Your task to perform on an android device: toggle pop-ups in chrome Image 0: 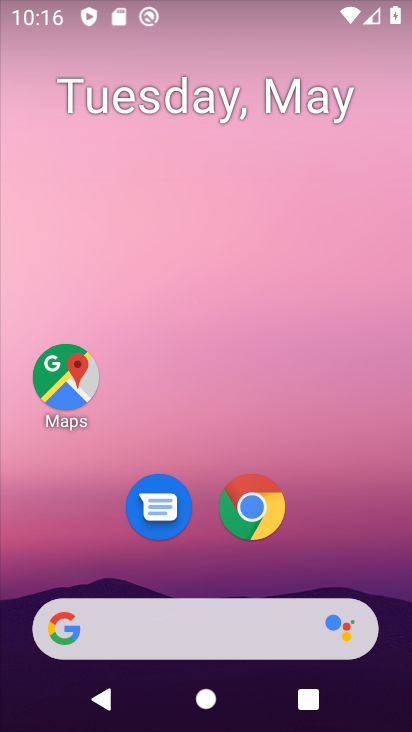
Step 0: drag from (214, 651) to (288, 77)
Your task to perform on an android device: toggle pop-ups in chrome Image 1: 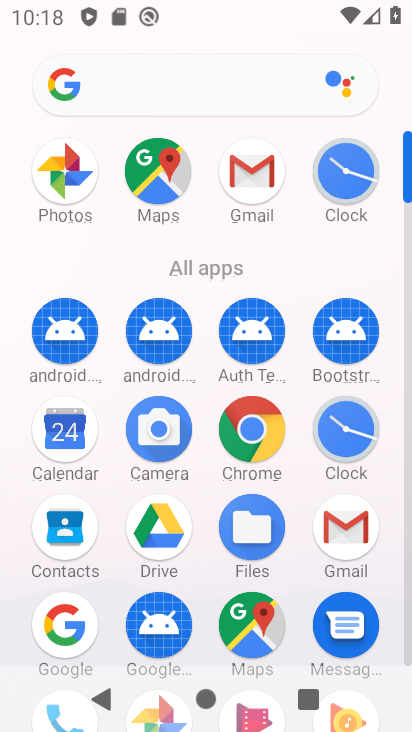
Step 1: click (256, 440)
Your task to perform on an android device: toggle pop-ups in chrome Image 2: 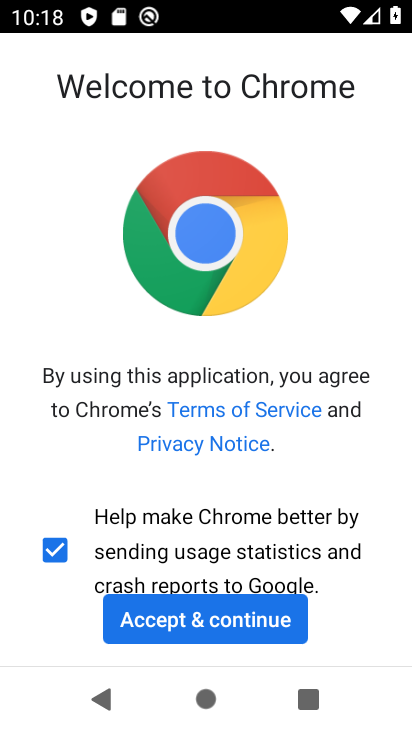
Step 2: click (209, 627)
Your task to perform on an android device: toggle pop-ups in chrome Image 3: 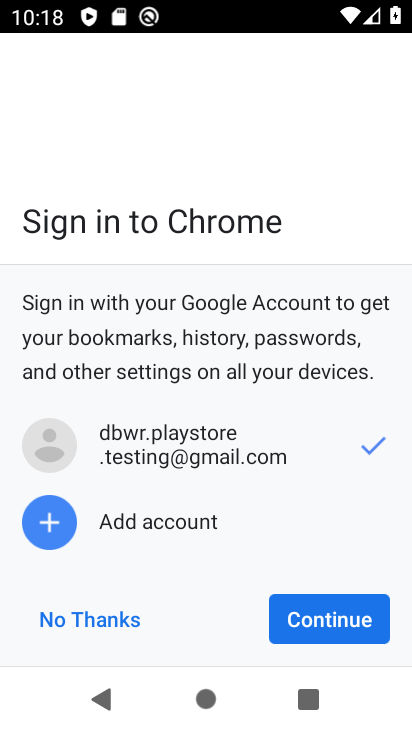
Step 3: click (334, 603)
Your task to perform on an android device: toggle pop-ups in chrome Image 4: 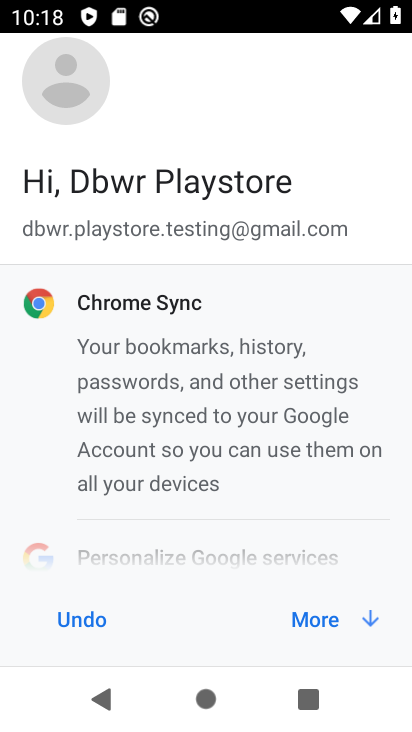
Step 4: click (365, 622)
Your task to perform on an android device: toggle pop-ups in chrome Image 5: 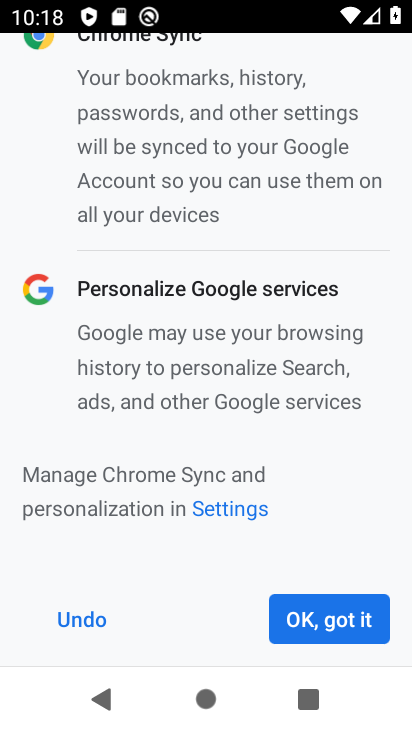
Step 5: click (364, 607)
Your task to perform on an android device: toggle pop-ups in chrome Image 6: 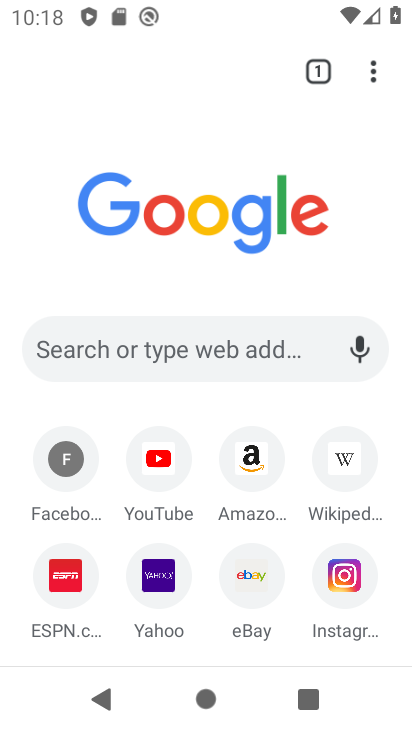
Step 6: click (379, 81)
Your task to perform on an android device: toggle pop-ups in chrome Image 7: 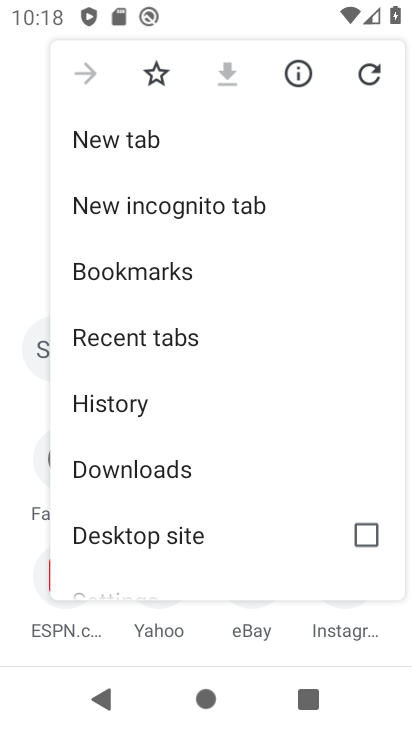
Step 7: drag from (141, 531) to (232, 241)
Your task to perform on an android device: toggle pop-ups in chrome Image 8: 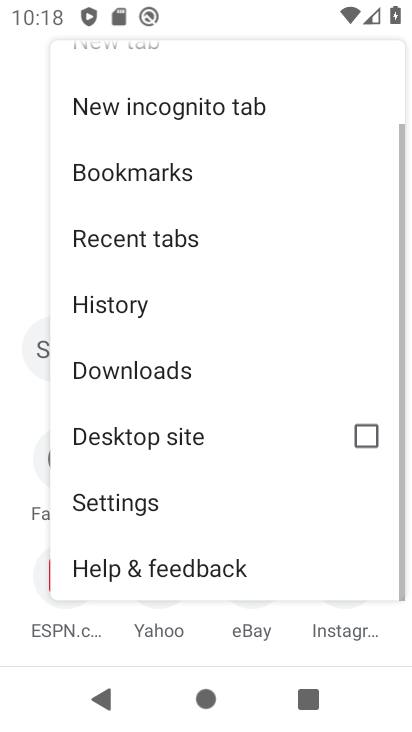
Step 8: click (133, 503)
Your task to perform on an android device: toggle pop-ups in chrome Image 9: 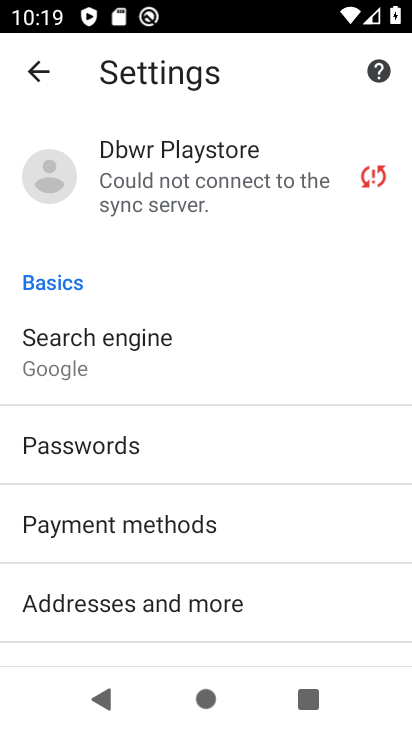
Step 9: drag from (131, 490) to (196, 290)
Your task to perform on an android device: toggle pop-ups in chrome Image 10: 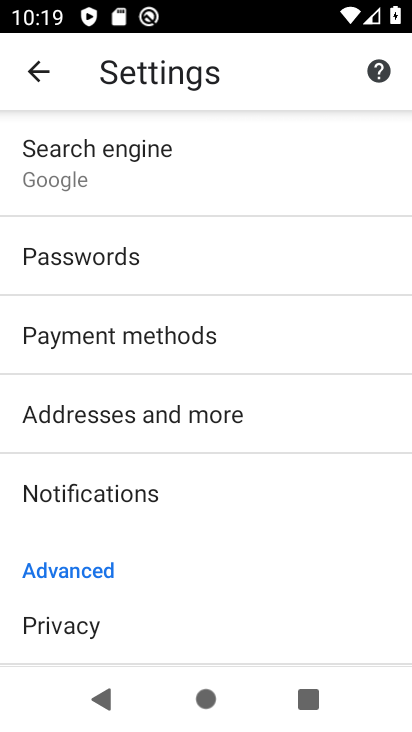
Step 10: drag from (118, 634) to (192, 290)
Your task to perform on an android device: toggle pop-ups in chrome Image 11: 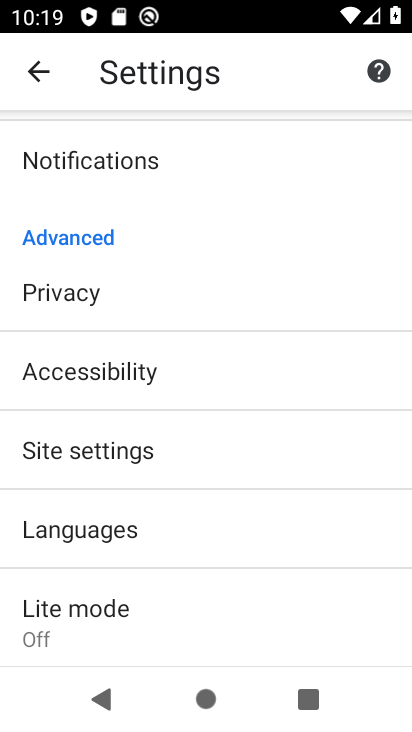
Step 11: drag from (110, 600) to (189, 317)
Your task to perform on an android device: toggle pop-ups in chrome Image 12: 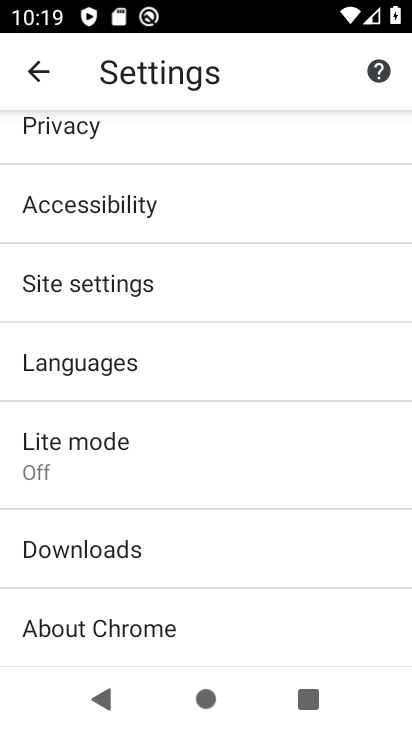
Step 12: click (110, 298)
Your task to perform on an android device: toggle pop-ups in chrome Image 13: 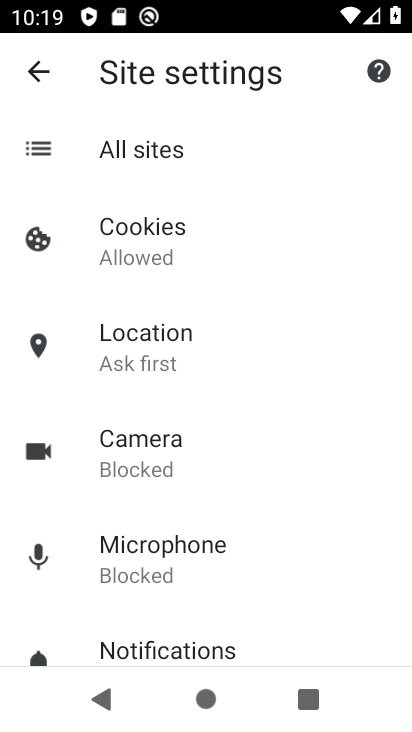
Step 13: drag from (179, 620) to (266, 197)
Your task to perform on an android device: toggle pop-ups in chrome Image 14: 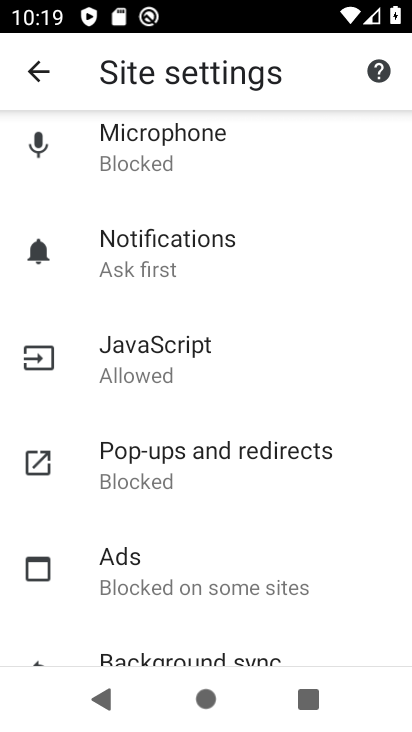
Step 14: click (196, 468)
Your task to perform on an android device: toggle pop-ups in chrome Image 15: 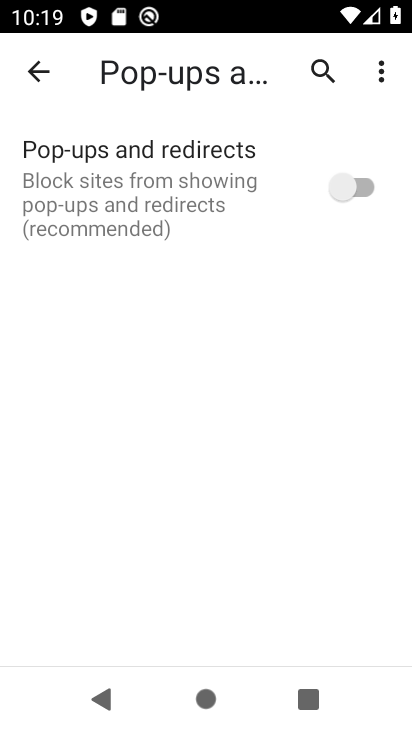
Step 15: task complete